Your task to perform on an android device: turn on showing notifications on the lock screen Image 0: 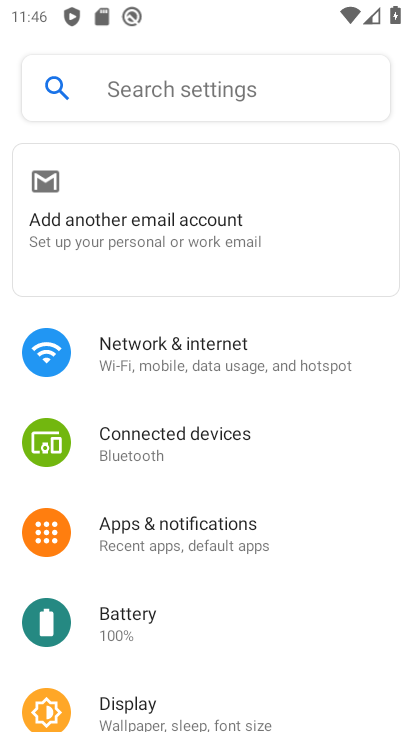
Step 0: click (188, 515)
Your task to perform on an android device: turn on showing notifications on the lock screen Image 1: 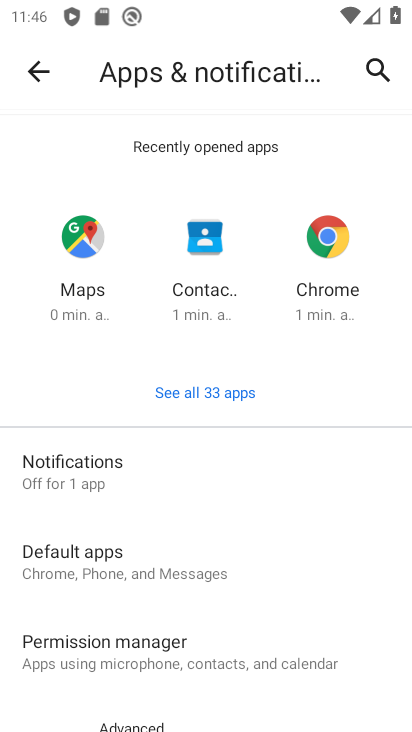
Step 1: click (130, 472)
Your task to perform on an android device: turn on showing notifications on the lock screen Image 2: 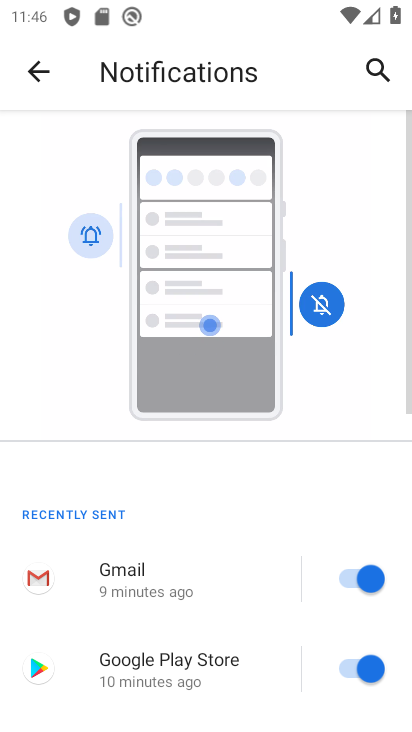
Step 2: drag from (174, 649) to (135, 227)
Your task to perform on an android device: turn on showing notifications on the lock screen Image 3: 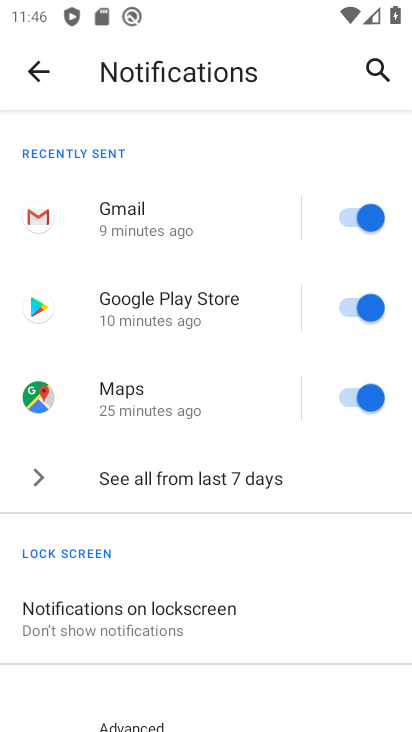
Step 3: click (145, 611)
Your task to perform on an android device: turn on showing notifications on the lock screen Image 4: 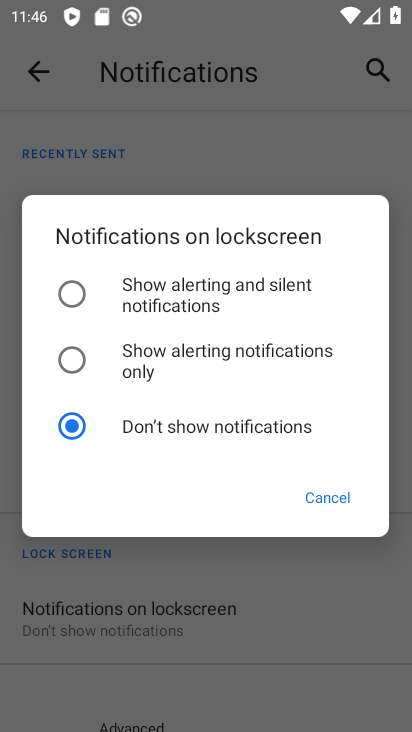
Step 4: click (169, 308)
Your task to perform on an android device: turn on showing notifications on the lock screen Image 5: 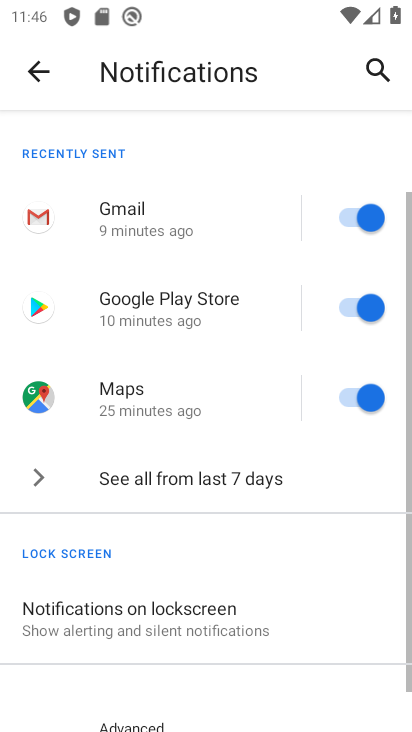
Step 5: task complete